Your task to perform on an android device: toggle translation in the chrome app Image 0: 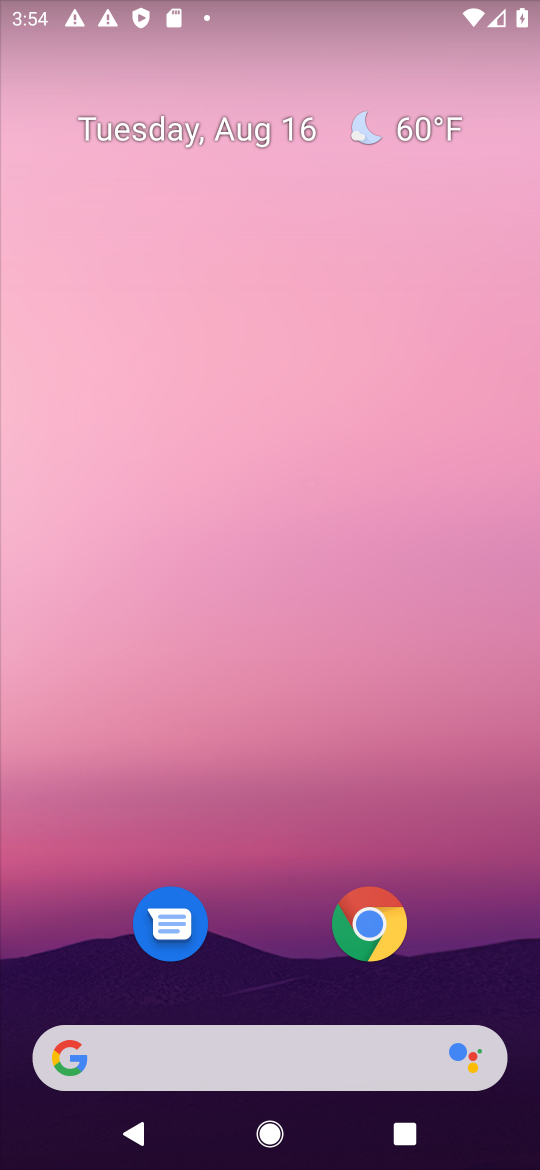
Step 0: click (360, 922)
Your task to perform on an android device: toggle translation in the chrome app Image 1: 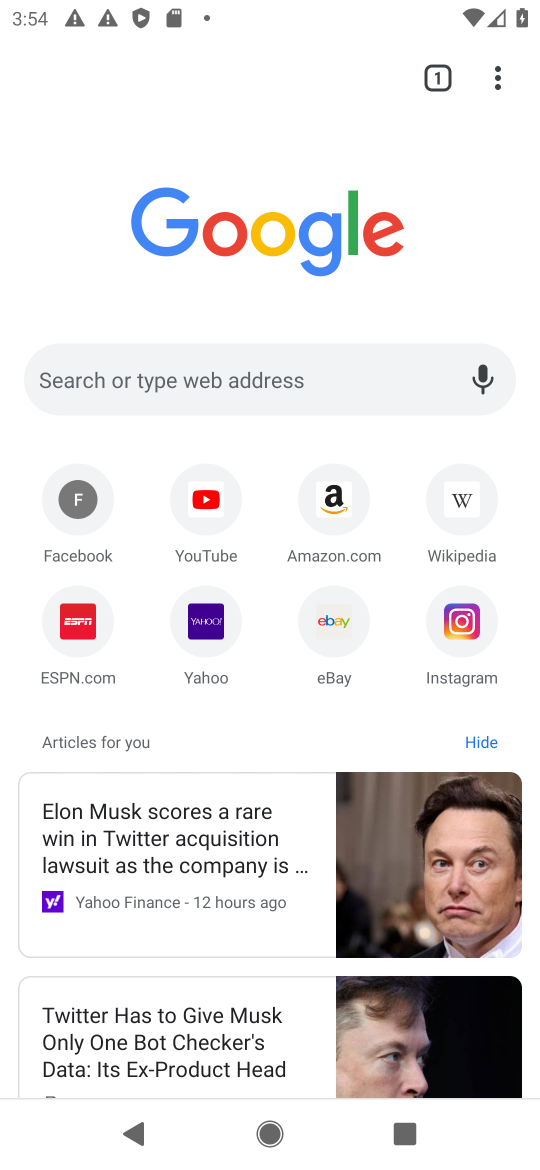
Step 1: click (507, 81)
Your task to perform on an android device: toggle translation in the chrome app Image 2: 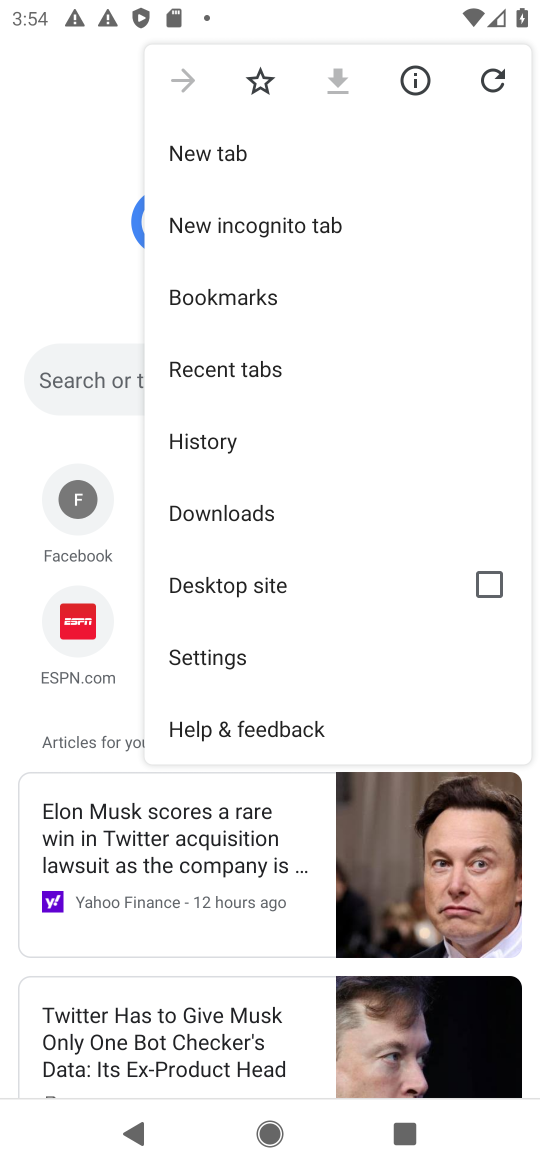
Step 2: click (239, 655)
Your task to perform on an android device: toggle translation in the chrome app Image 3: 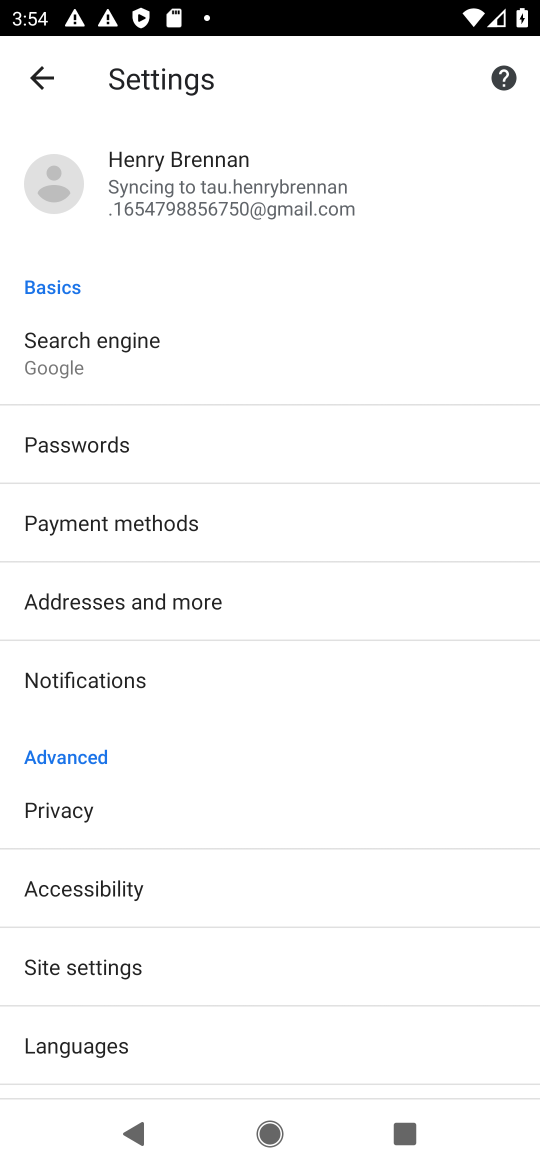
Step 3: click (245, 1042)
Your task to perform on an android device: toggle translation in the chrome app Image 4: 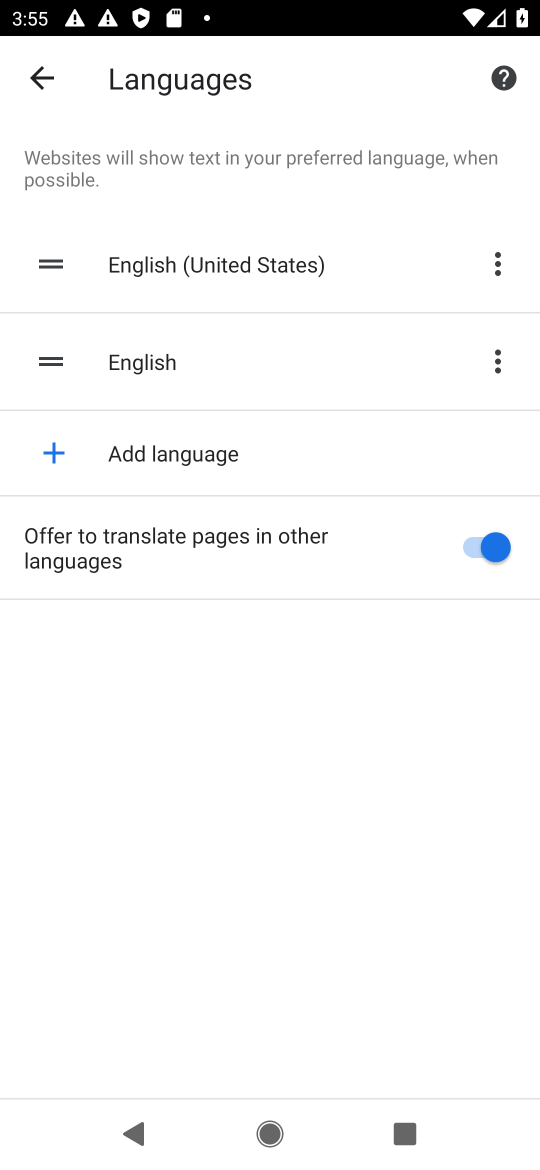
Step 4: click (495, 556)
Your task to perform on an android device: toggle translation in the chrome app Image 5: 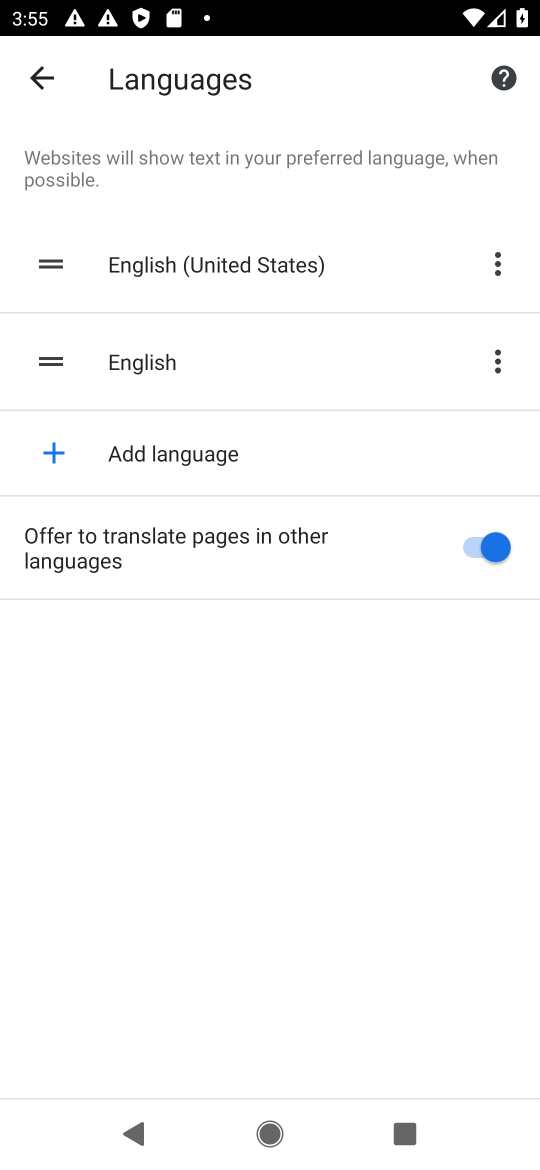
Step 5: click (495, 556)
Your task to perform on an android device: toggle translation in the chrome app Image 6: 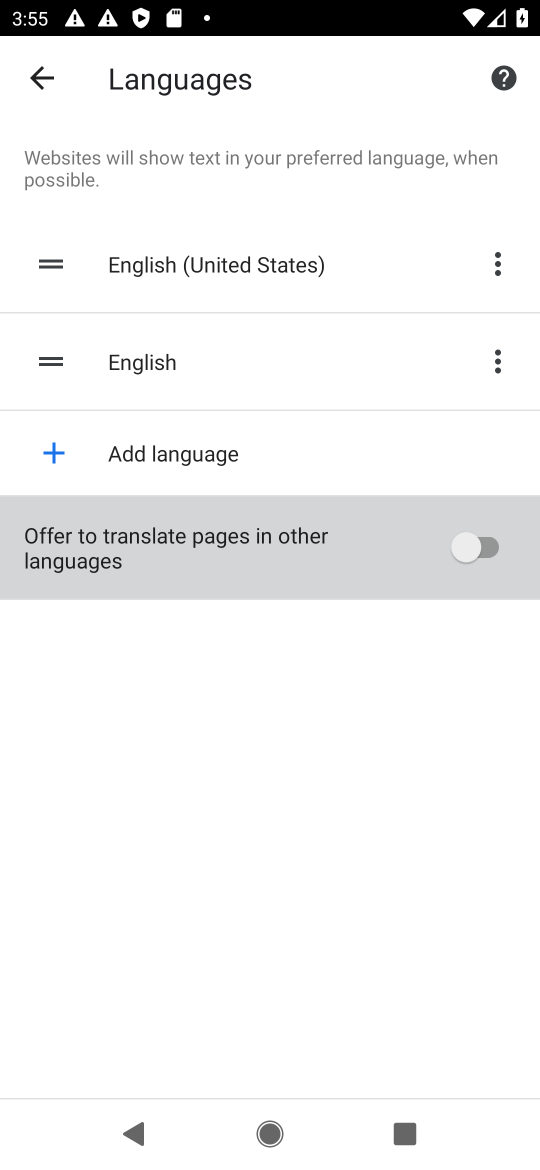
Step 6: click (495, 556)
Your task to perform on an android device: toggle translation in the chrome app Image 7: 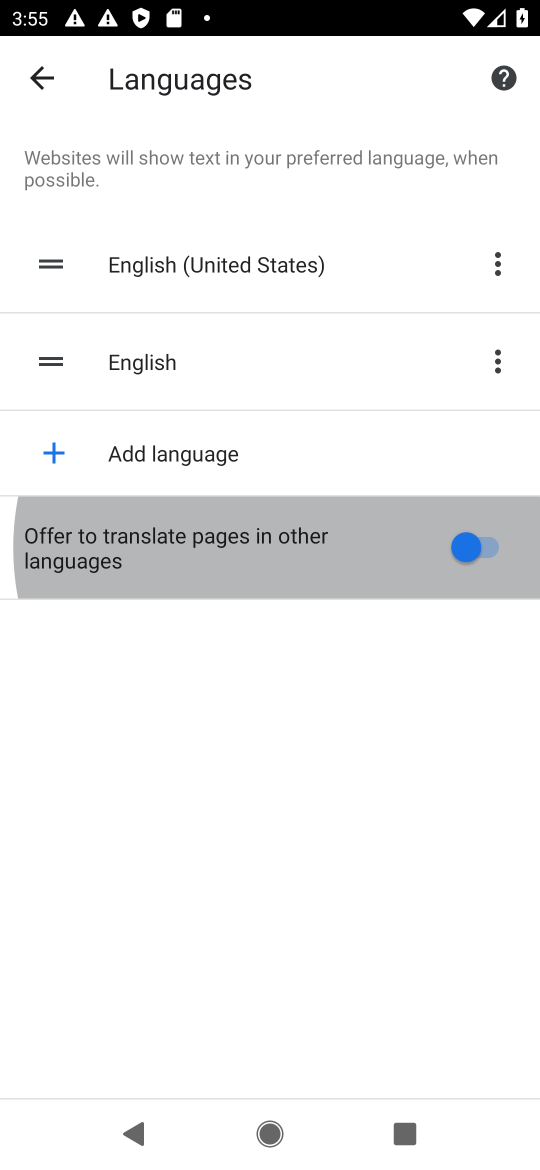
Step 7: click (495, 556)
Your task to perform on an android device: toggle translation in the chrome app Image 8: 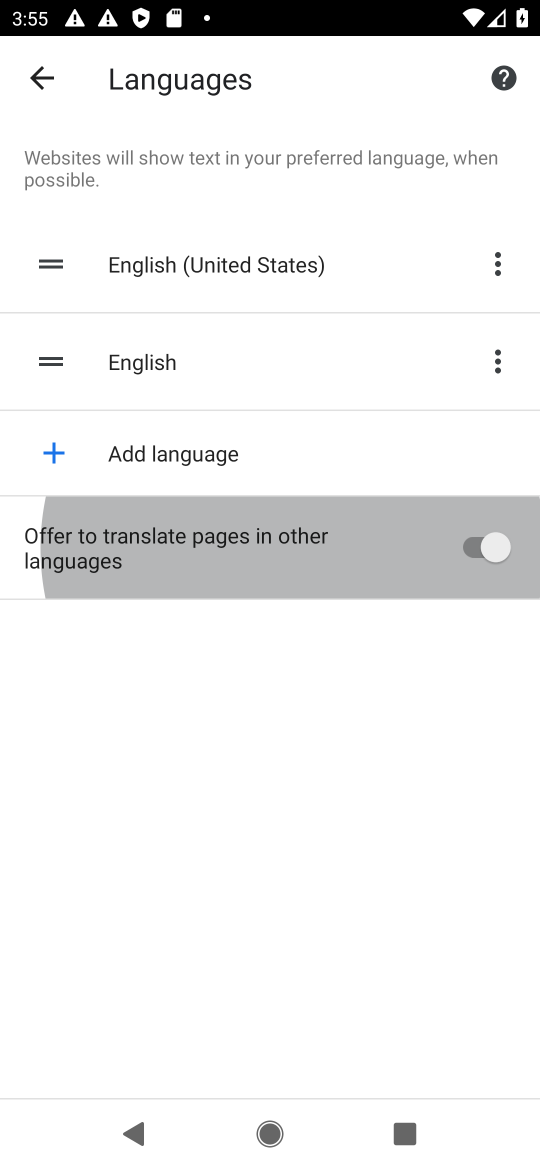
Step 8: click (495, 556)
Your task to perform on an android device: toggle translation in the chrome app Image 9: 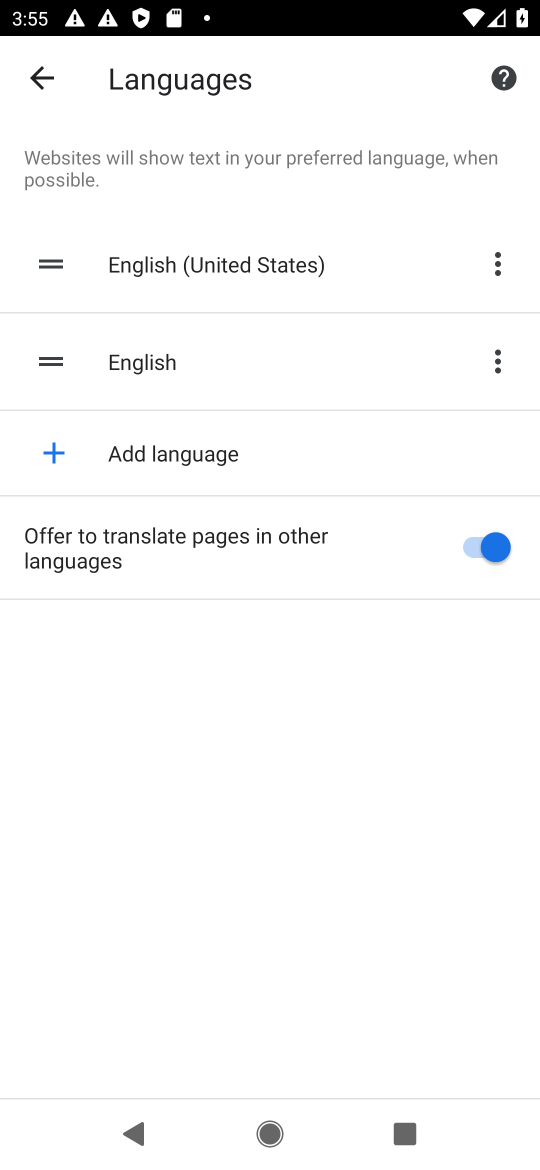
Step 9: task complete